Your task to perform on an android device: Clear the shopping cart on amazon.com. Add apple airpods pro to the cart on amazon.com Image 0: 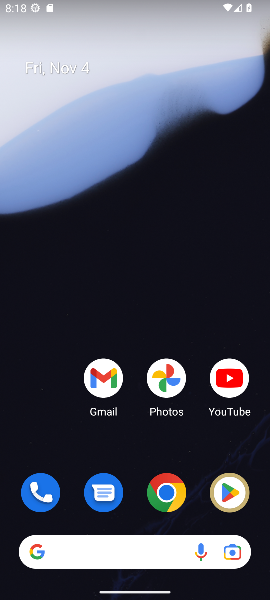
Step 0: drag from (146, 448) to (147, 57)
Your task to perform on an android device: Clear the shopping cart on amazon.com. Add apple airpods pro to the cart on amazon.com Image 1: 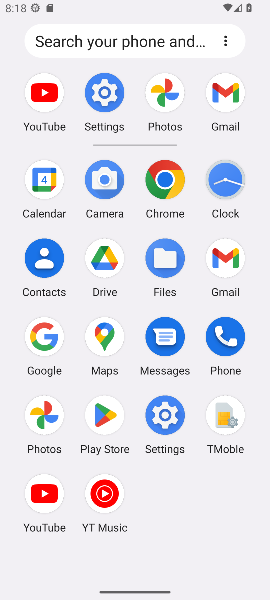
Step 1: click (161, 179)
Your task to perform on an android device: Clear the shopping cart on amazon.com. Add apple airpods pro to the cart on amazon.com Image 2: 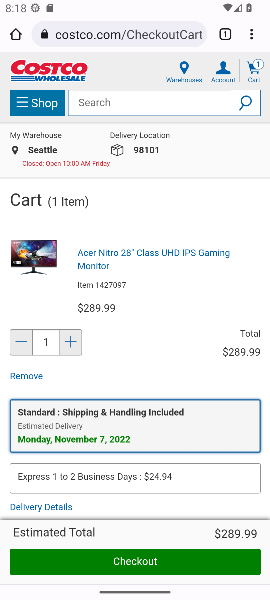
Step 2: click (108, 37)
Your task to perform on an android device: Clear the shopping cart on amazon.com. Add apple airpods pro to the cart on amazon.com Image 3: 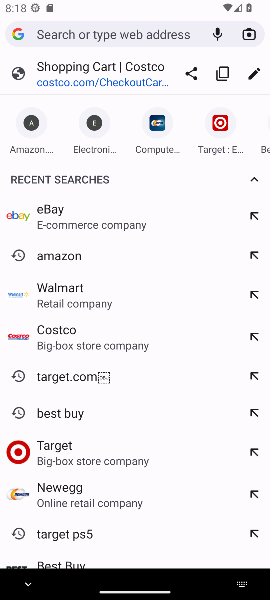
Step 3: type "amazon.com"
Your task to perform on an android device: Clear the shopping cart on amazon.com. Add apple airpods pro to the cart on amazon.com Image 4: 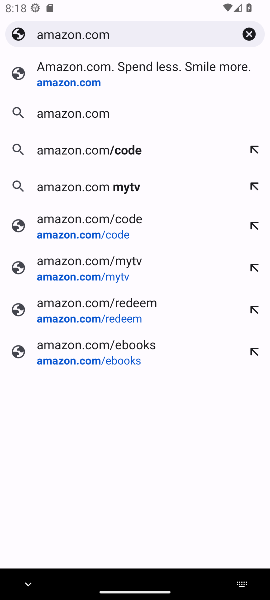
Step 4: press enter
Your task to perform on an android device: Clear the shopping cart on amazon.com. Add apple airpods pro to the cart on amazon.com Image 5: 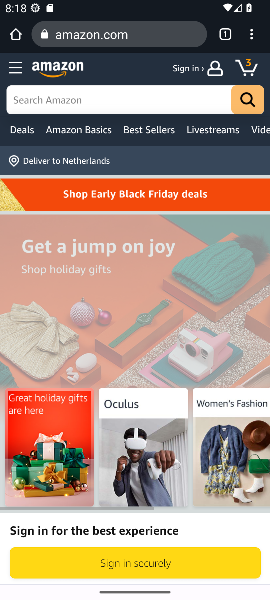
Step 5: click (243, 66)
Your task to perform on an android device: Clear the shopping cart on amazon.com. Add apple airpods pro to the cart on amazon.com Image 6: 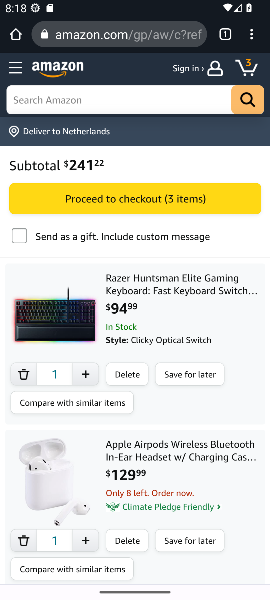
Step 6: click (23, 373)
Your task to perform on an android device: Clear the shopping cart on amazon.com. Add apple airpods pro to the cart on amazon.com Image 7: 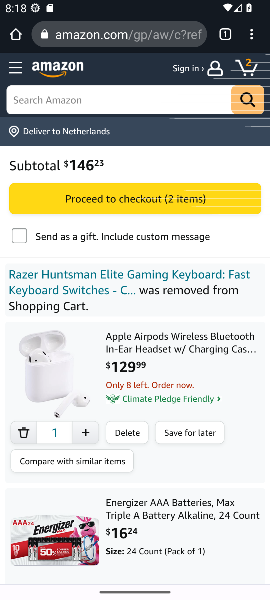
Step 7: click (20, 436)
Your task to perform on an android device: Clear the shopping cart on amazon.com. Add apple airpods pro to the cart on amazon.com Image 8: 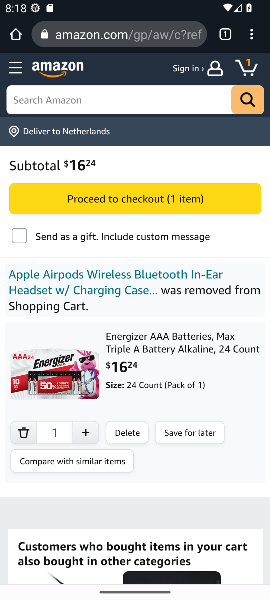
Step 8: click (20, 436)
Your task to perform on an android device: Clear the shopping cart on amazon.com. Add apple airpods pro to the cart on amazon.com Image 9: 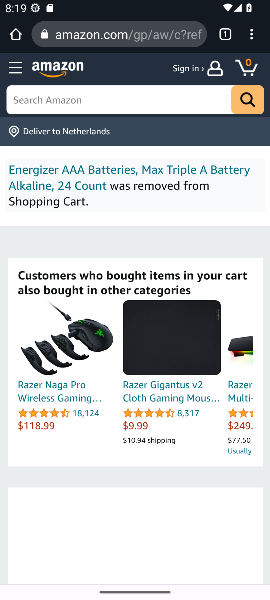
Step 9: click (165, 102)
Your task to perform on an android device: Clear the shopping cart on amazon.com. Add apple airpods pro to the cart on amazon.com Image 10: 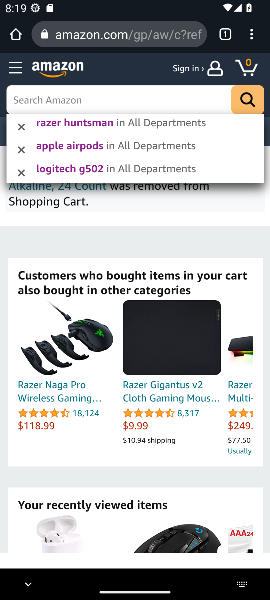
Step 10: type "apple airpods"
Your task to perform on an android device: Clear the shopping cart on amazon.com. Add apple airpods pro to the cart on amazon.com Image 11: 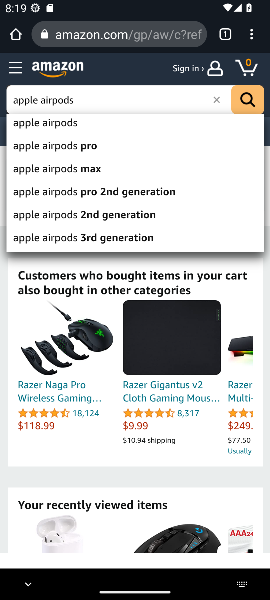
Step 11: press enter
Your task to perform on an android device: Clear the shopping cart on amazon.com. Add apple airpods pro to the cart on amazon.com Image 12: 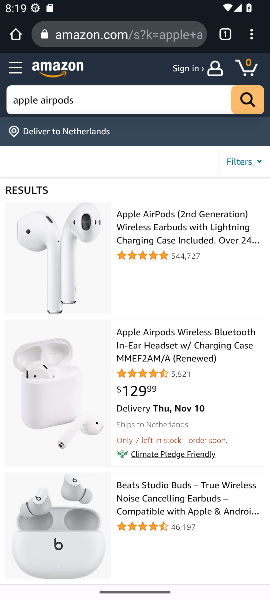
Step 12: click (174, 229)
Your task to perform on an android device: Clear the shopping cart on amazon.com. Add apple airpods pro to the cart on amazon.com Image 13: 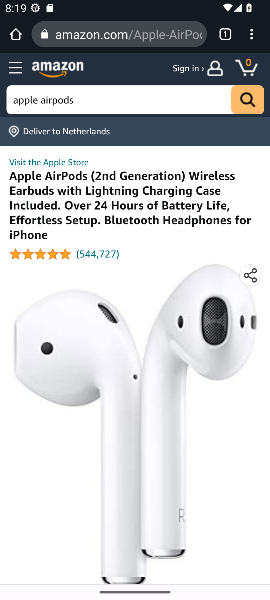
Step 13: task complete